Your task to perform on an android device: Show me productivity apps on the Play Store Image 0: 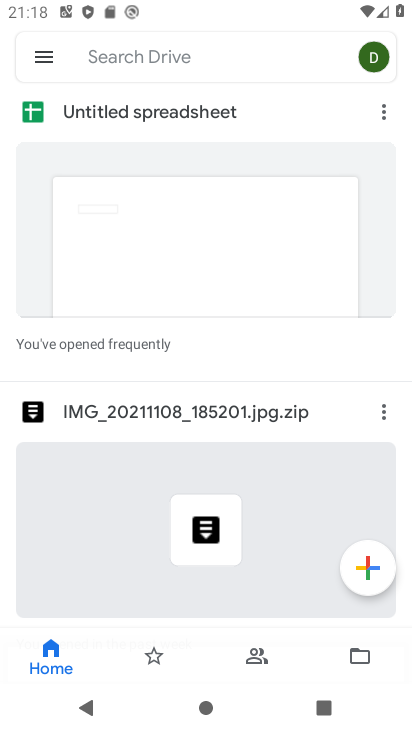
Step 0: press home button
Your task to perform on an android device: Show me productivity apps on the Play Store Image 1: 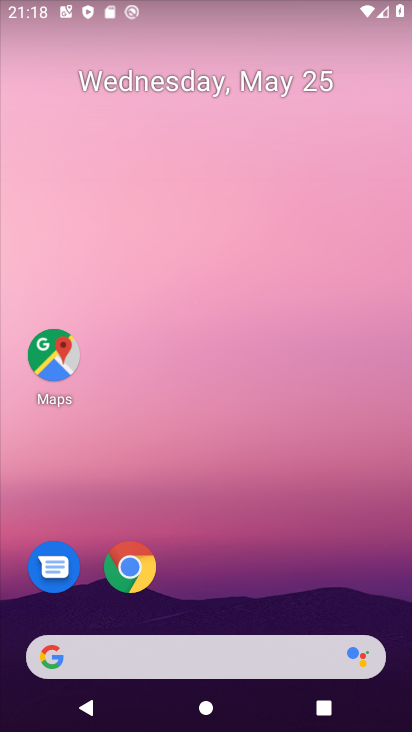
Step 1: drag from (317, 534) to (310, 29)
Your task to perform on an android device: Show me productivity apps on the Play Store Image 2: 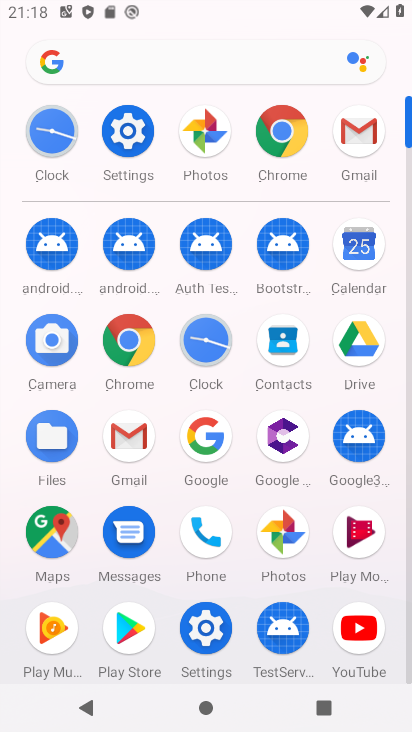
Step 2: click (132, 606)
Your task to perform on an android device: Show me productivity apps on the Play Store Image 3: 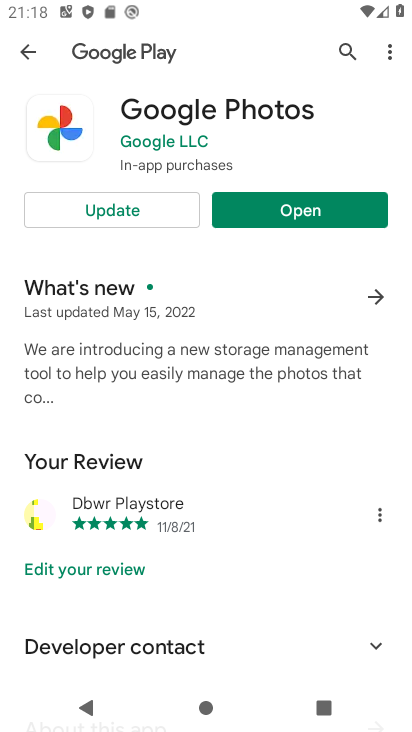
Step 3: click (24, 40)
Your task to perform on an android device: Show me productivity apps on the Play Store Image 4: 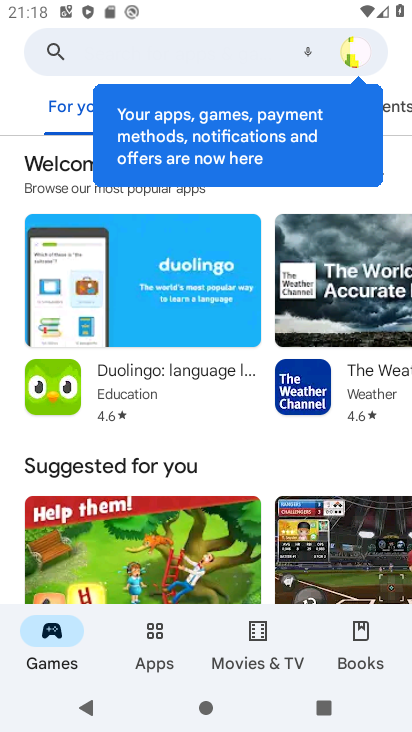
Step 4: click (165, 643)
Your task to perform on an android device: Show me productivity apps on the Play Store Image 5: 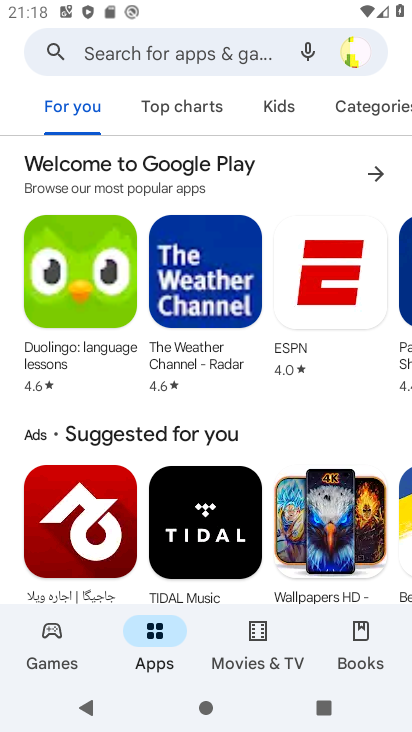
Step 5: click (383, 94)
Your task to perform on an android device: Show me productivity apps on the Play Store Image 6: 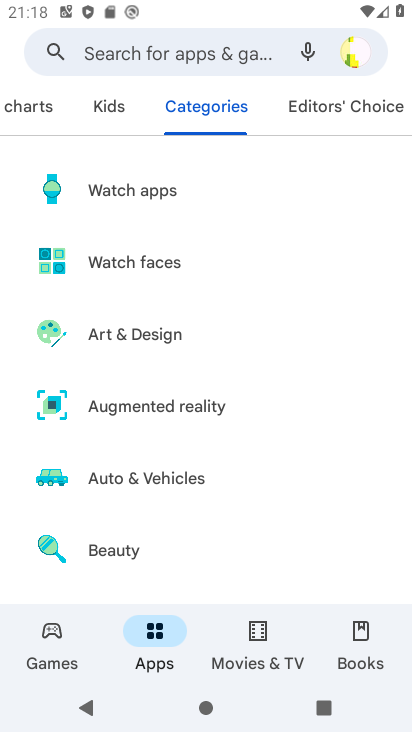
Step 6: drag from (231, 475) to (229, 132)
Your task to perform on an android device: Show me productivity apps on the Play Store Image 7: 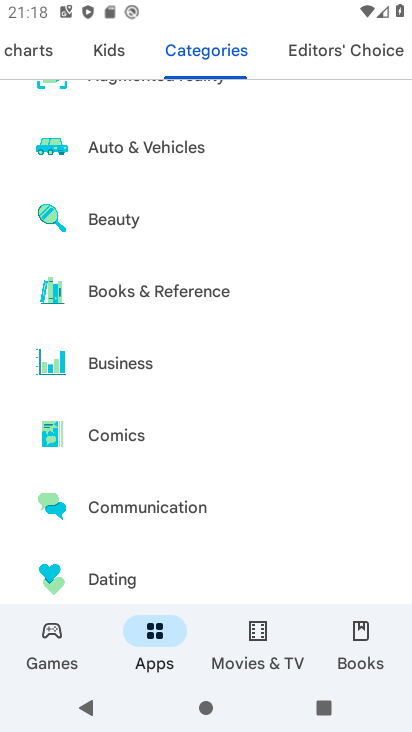
Step 7: drag from (231, 434) to (241, 74)
Your task to perform on an android device: Show me productivity apps on the Play Store Image 8: 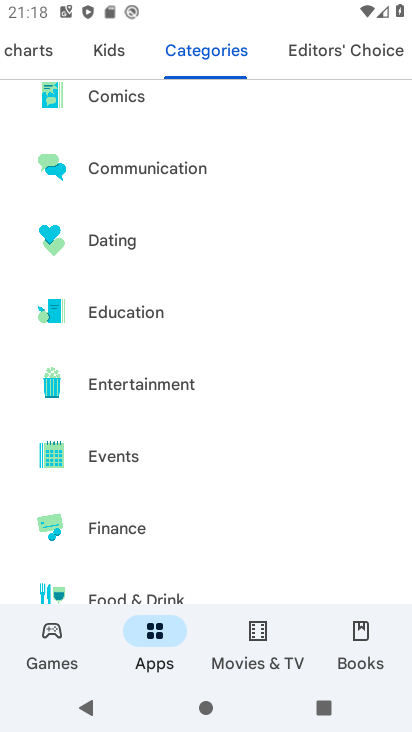
Step 8: drag from (230, 474) to (248, 84)
Your task to perform on an android device: Show me productivity apps on the Play Store Image 9: 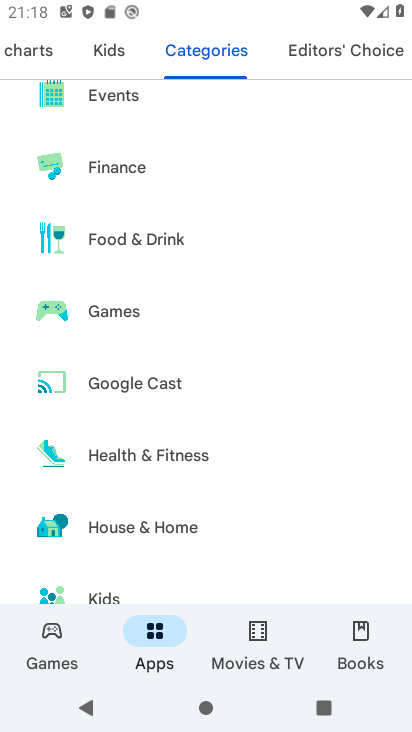
Step 9: drag from (218, 529) to (251, 88)
Your task to perform on an android device: Show me productivity apps on the Play Store Image 10: 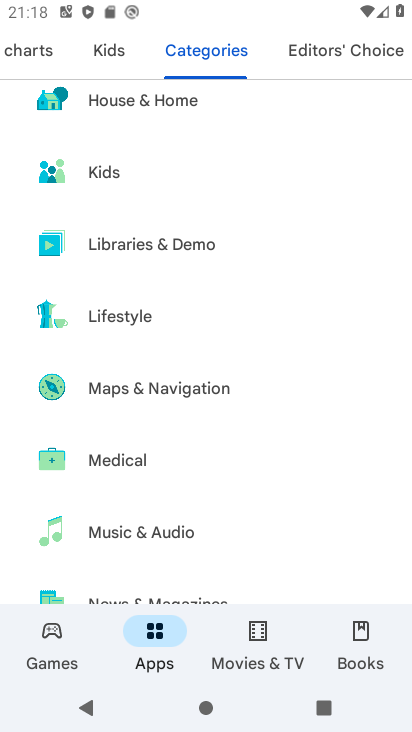
Step 10: drag from (215, 522) to (264, 89)
Your task to perform on an android device: Show me productivity apps on the Play Store Image 11: 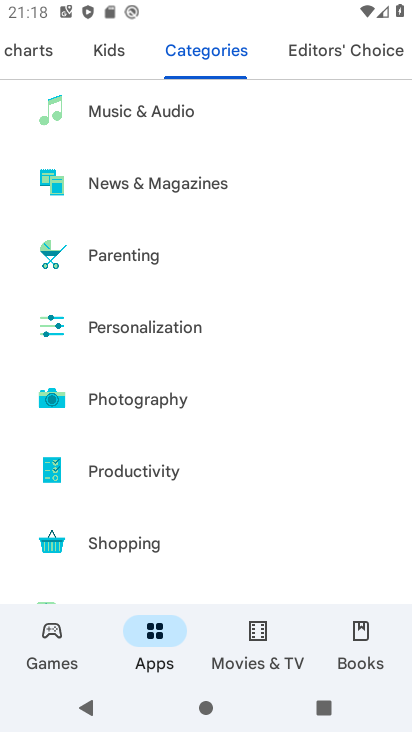
Step 11: click (183, 465)
Your task to perform on an android device: Show me productivity apps on the Play Store Image 12: 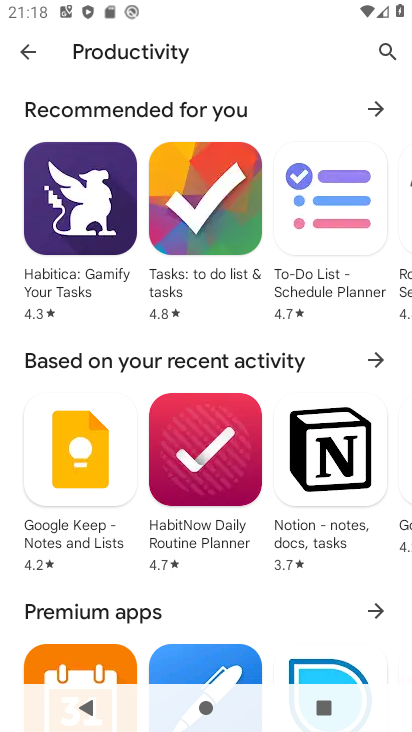
Step 12: task complete